Your task to perform on an android device: Check the news Image 0: 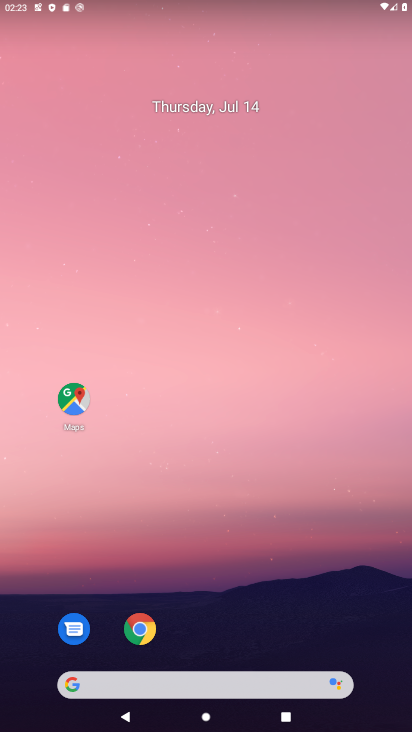
Step 0: click (173, 691)
Your task to perform on an android device: Check the news Image 1: 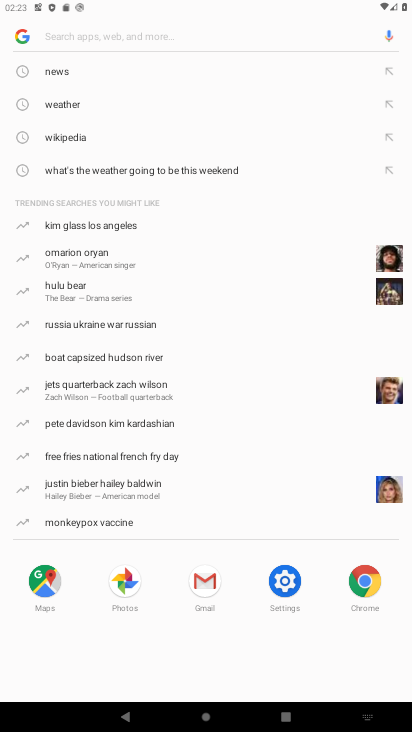
Step 1: click (64, 72)
Your task to perform on an android device: Check the news Image 2: 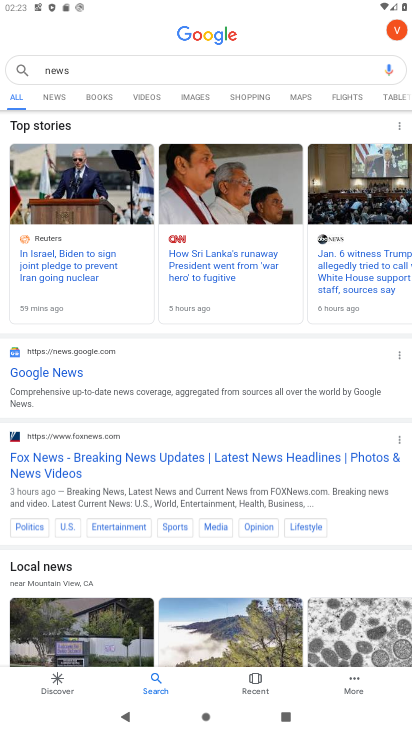
Step 2: task complete